Your task to perform on an android device: Open the Play Movies app and select the watchlist tab. Image 0: 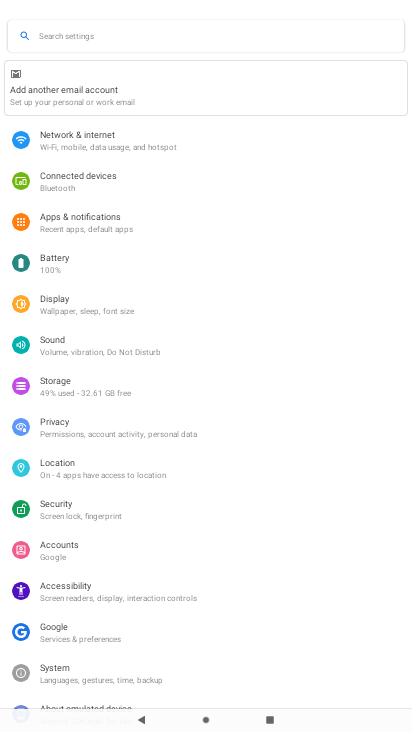
Step 0: press home button
Your task to perform on an android device: Open the Play Movies app and select the watchlist tab. Image 1: 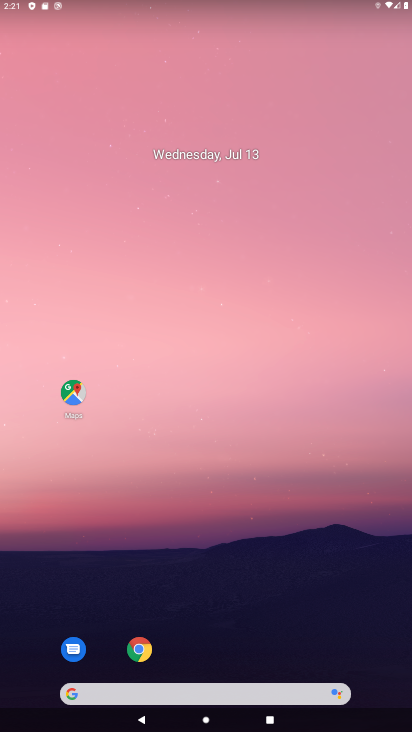
Step 1: drag from (237, 600) to (204, 182)
Your task to perform on an android device: Open the Play Movies app and select the watchlist tab. Image 2: 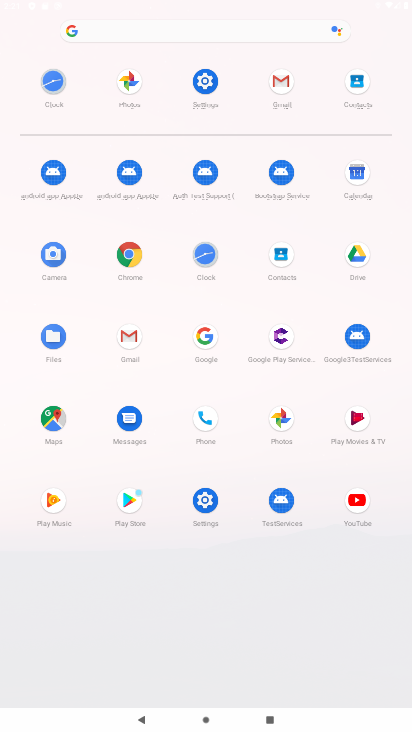
Step 2: click (352, 415)
Your task to perform on an android device: Open the Play Movies app and select the watchlist tab. Image 3: 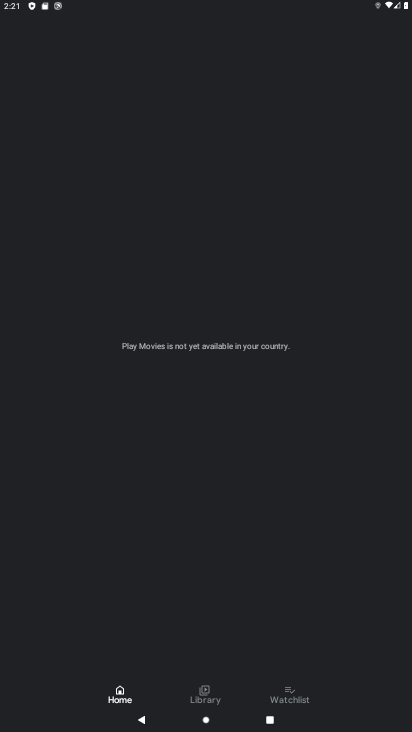
Step 3: click (280, 691)
Your task to perform on an android device: Open the Play Movies app and select the watchlist tab. Image 4: 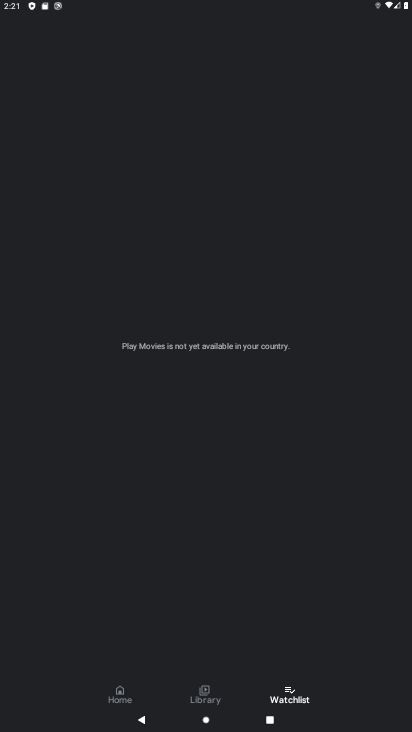
Step 4: task complete